Your task to perform on an android device: Search for seafood restaurants on Google Maps Image 0: 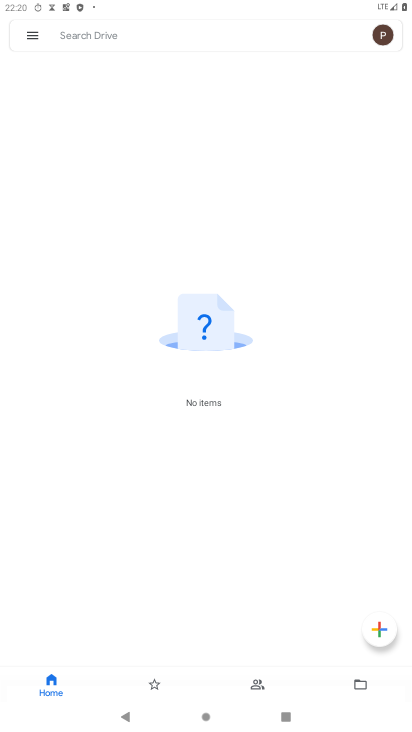
Step 0: press home button
Your task to perform on an android device: Search for seafood restaurants on Google Maps Image 1: 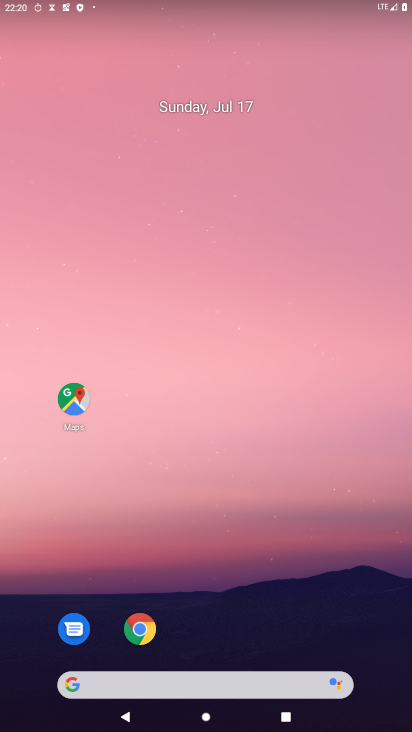
Step 1: drag from (227, 729) to (227, 13)
Your task to perform on an android device: Search for seafood restaurants on Google Maps Image 2: 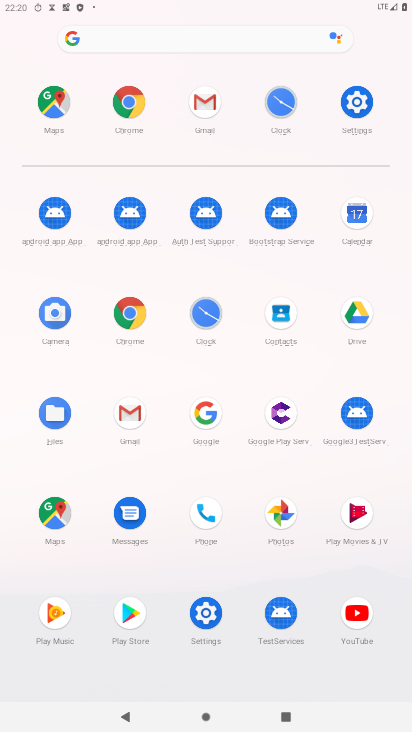
Step 2: click (51, 498)
Your task to perform on an android device: Search for seafood restaurants on Google Maps Image 3: 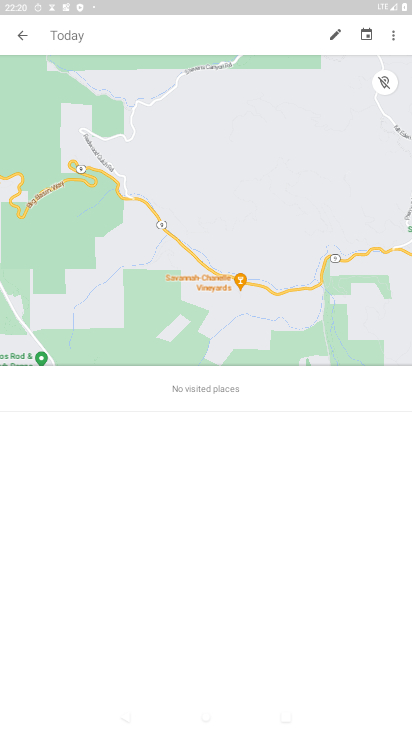
Step 3: click (21, 34)
Your task to perform on an android device: Search for seafood restaurants on Google Maps Image 4: 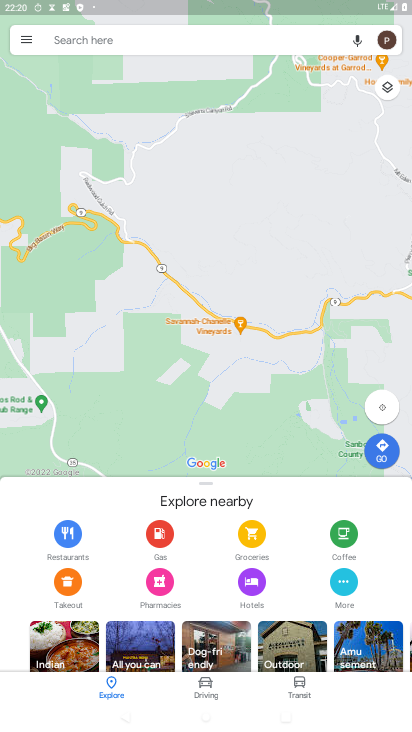
Step 4: click (120, 41)
Your task to perform on an android device: Search for seafood restaurants on Google Maps Image 5: 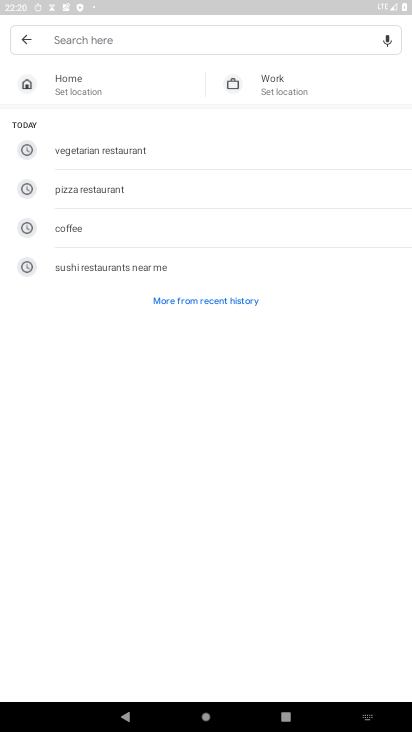
Step 5: type "seafood restaurants"
Your task to perform on an android device: Search for seafood restaurants on Google Maps Image 6: 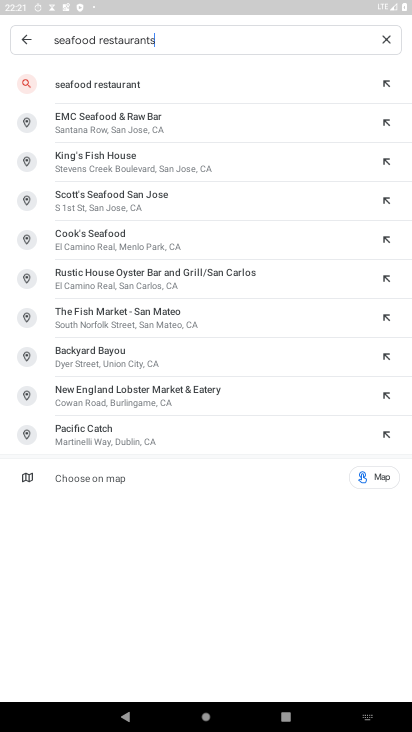
Step 6: click (122, 85)
Your task to perform on an android device: Search for seafood restaurants on Google Maps Image 7: 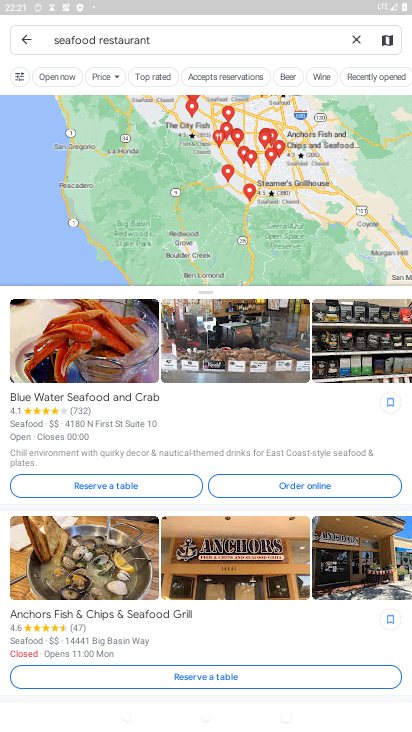
Step 7: task complete